Your task to perform on an android device: Search for seafood restaurants on Google Maps Image 0: 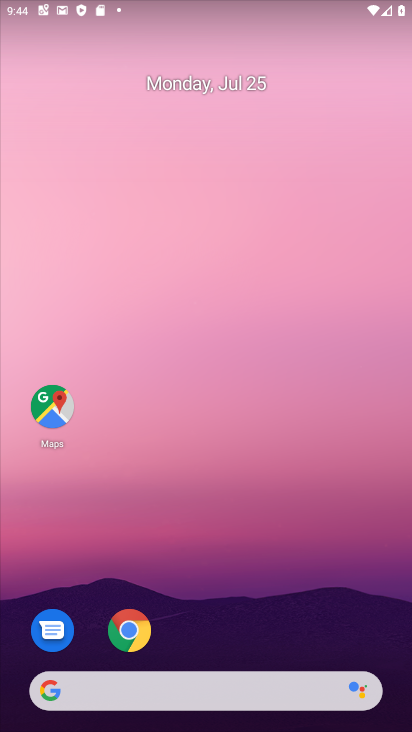
Step 0: press home button
Your task to perform on an android device: Search for seafood restaurants on Google Maps Image 1: 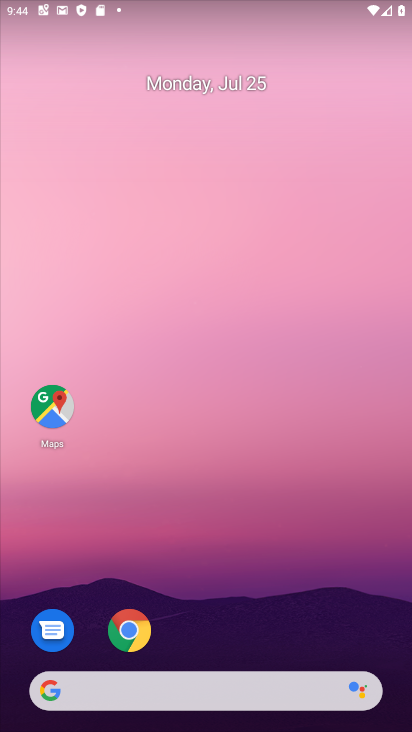
Step 1: drag from (248, 642) to (191, 39)
Your task to perform on an android device: Search for seafood restaurants on Google Maps Image 2: 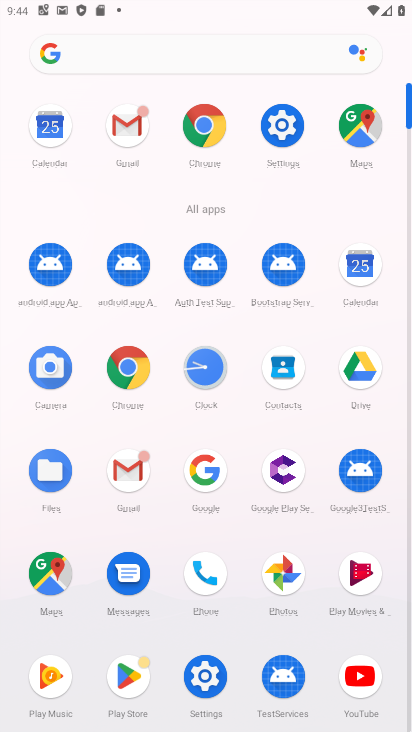
Step 2: click (362, 132)
Your task to perform on an android device: Search for seafood restaurants on Google Maps Image 3: 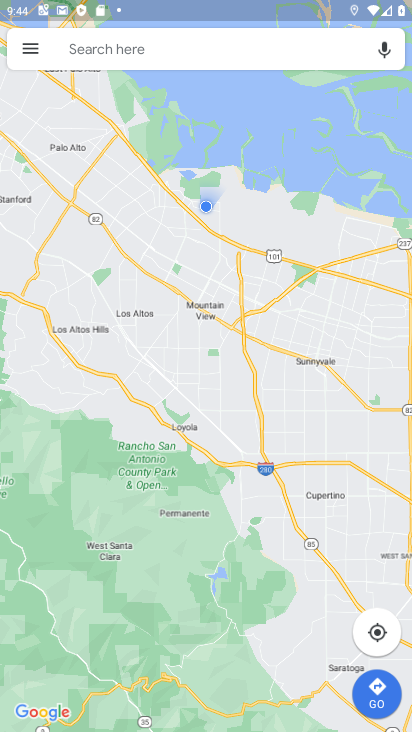
Step 3: click (145, 48)
Your task to perform on an android device: Search for seafood restaurants on Google Maps Image 4: 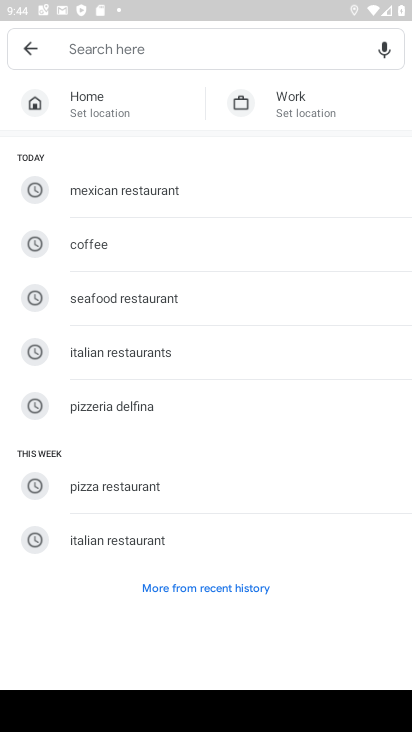
Step 4: click (129, 300)
Your task to perform on an android device: Search for seafood restaurants on Google Maps Image 5: 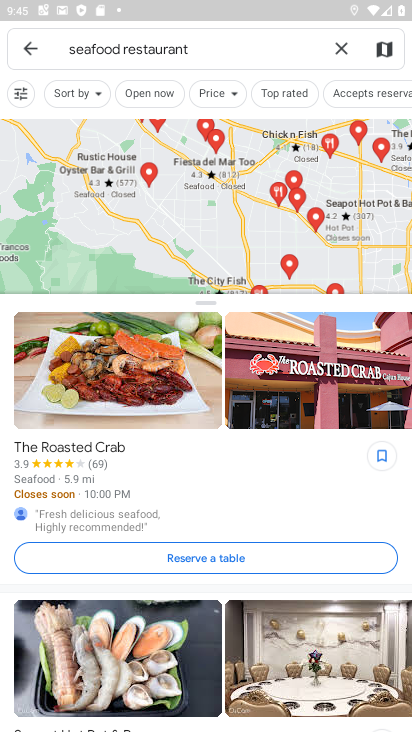
Step 5: task complete